Your task to perform on an android device: Go to wifi settings Image 0: 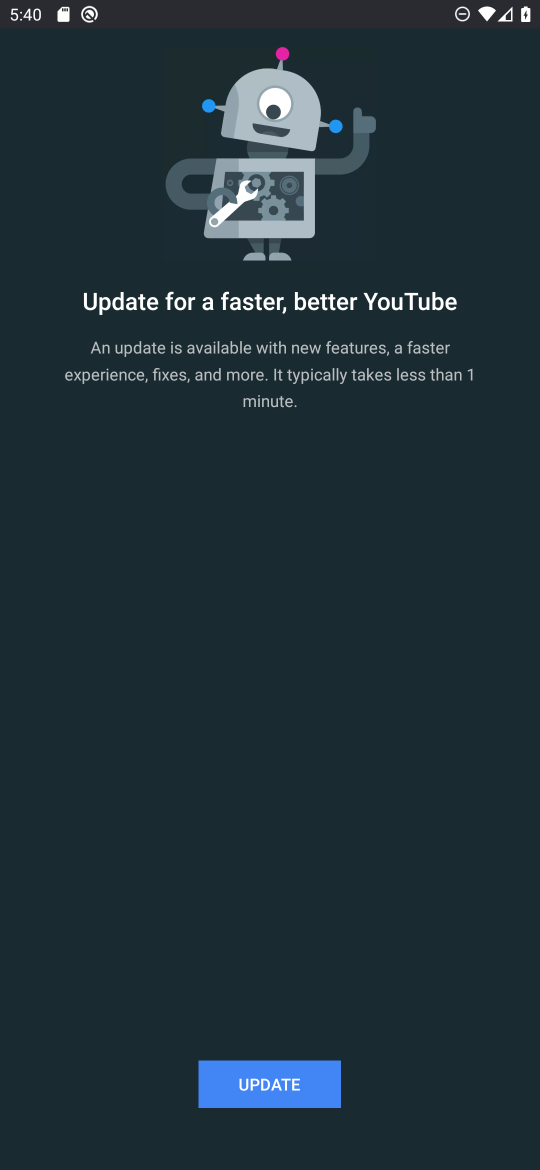
Step 0: press back button
Your task to perform on an android device: Go to wifi settings Image 1: 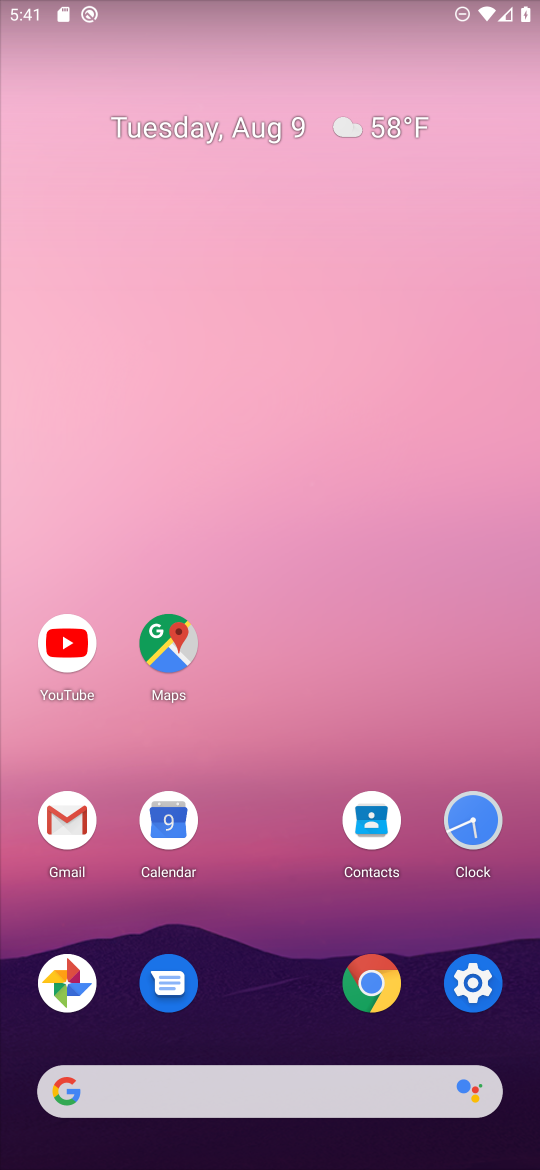
Step 1: click (518, 981)
Your task to perform on an android device: Go to wifi settings Image 2: 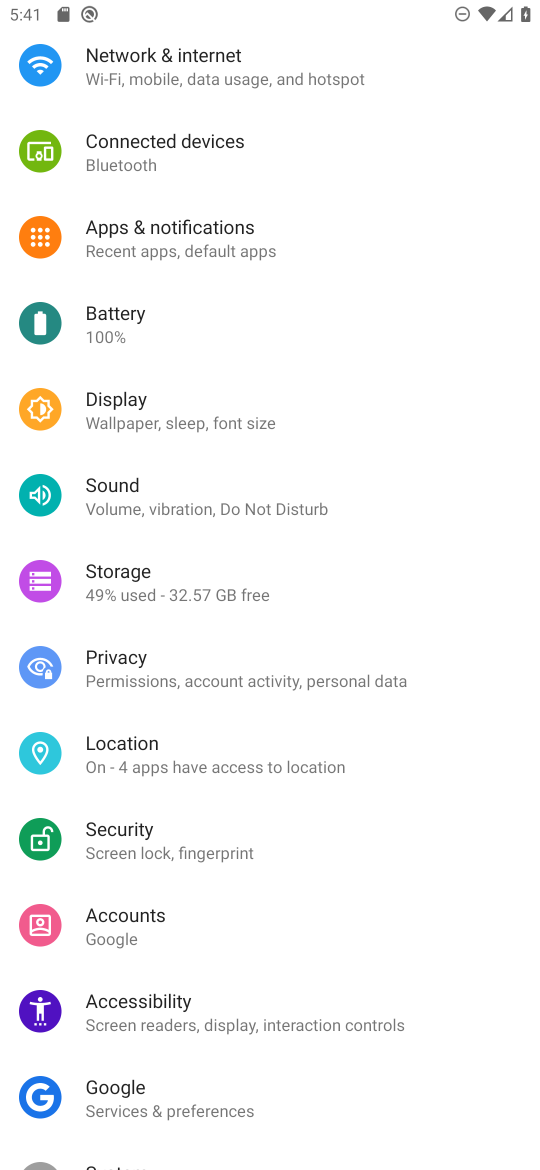
Step 2: click (144, 56)
Your task to perform on an android device: Go to wifi settings Image 3: 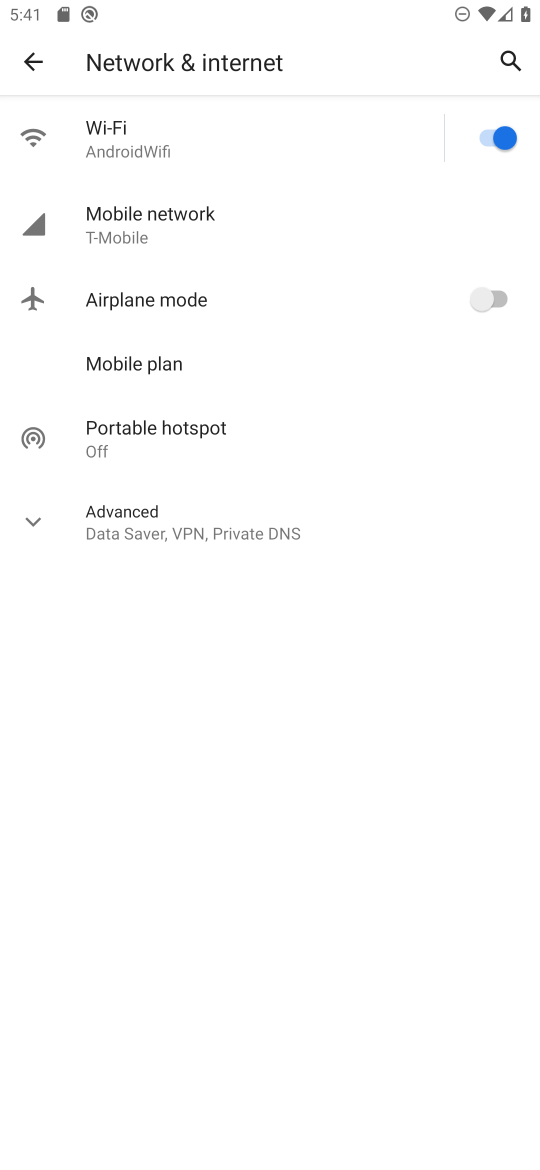
Step 3: click (111, 118)
Your task to perform on an android device: Go to wifi settings Image 4: 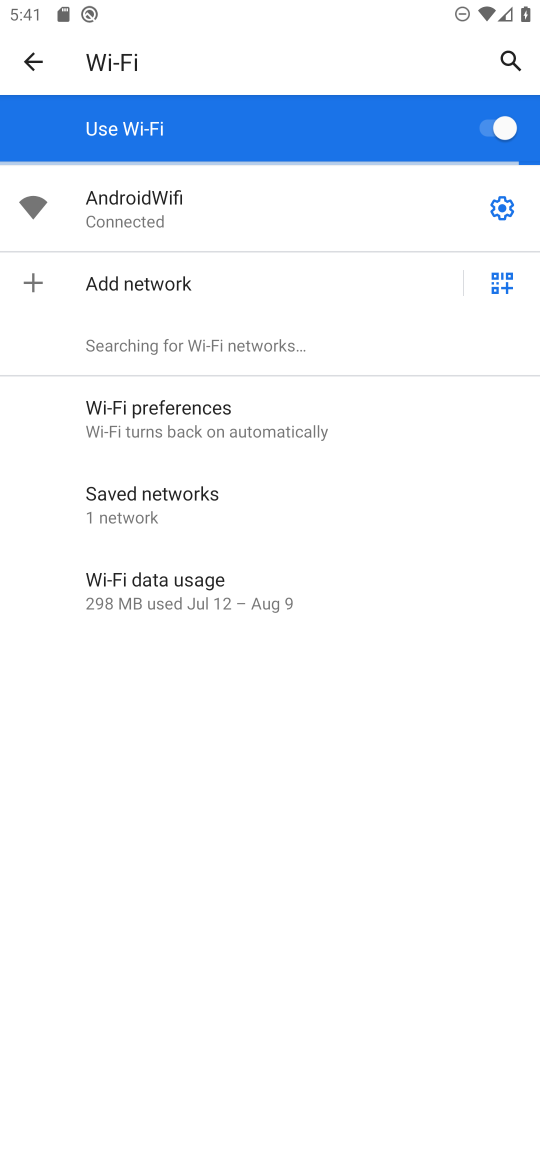
Step 4: task complete